Your task to perform on an android device: Go to eBay Image 0: 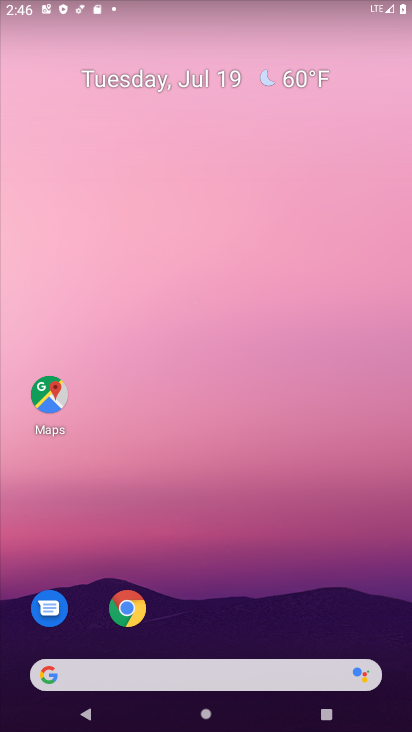
Step 0: drag from (374, 553) to (363, 43)
Your task to perform on an android device: Go to eBay Image 1: 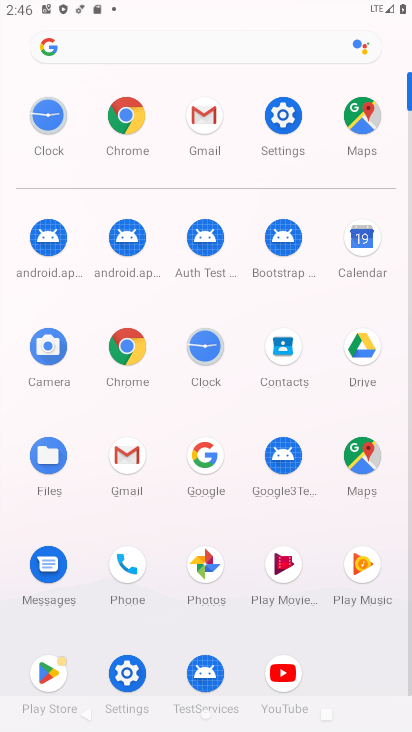
Step 1: click (137, 114)
Your task to perform on an android device: Go to eBay Image 2: 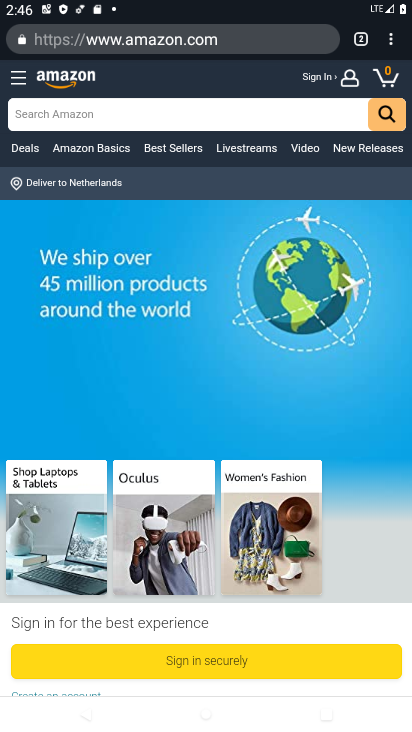
Step 2: press back button
Your task to perform on an android device: Go to eBay Image 3: 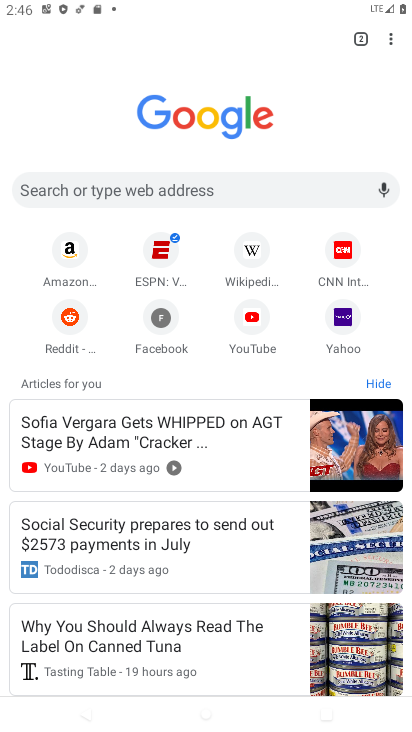
Step 3: click (262, 184)
Your task to perform on an android device: Go to eBay Image 4: 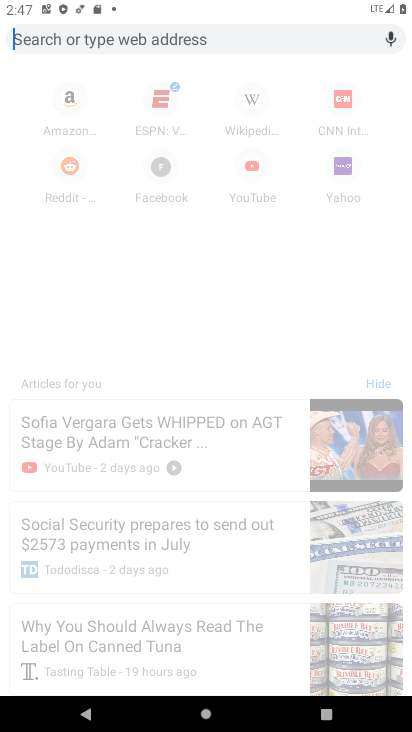
Step 4: type "eBay"
Your task to perform on an android device: Go to eBay Image 5: 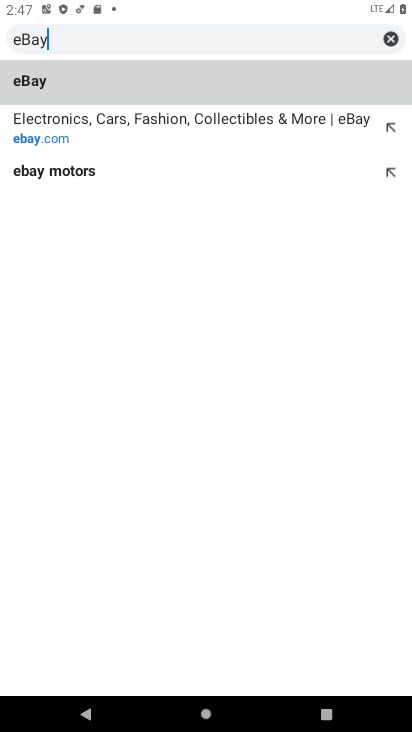
Step 5: press enter
Your task to perform on an android device: Go to eBay Image 6: 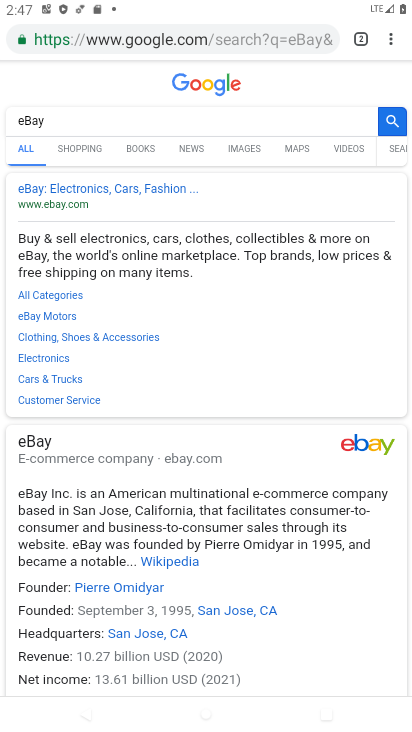
Step 6: task complete